Your task to perform on an android device: Go to notification settings Image 0: 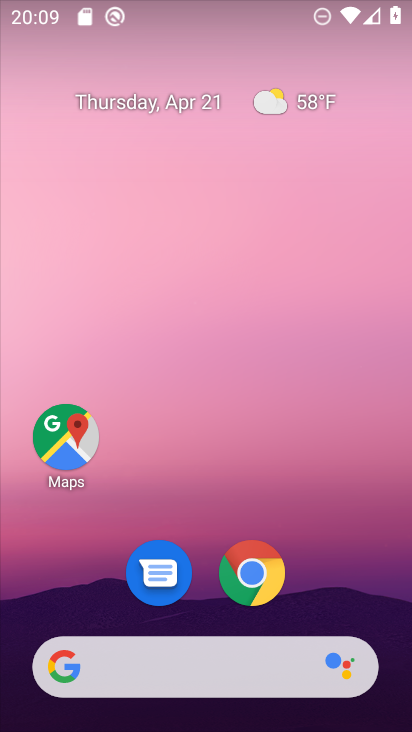
Step 0: drag from (184, 642) to (255, 183)
Your task to perform on an android device: Go to notification settings Image 1: 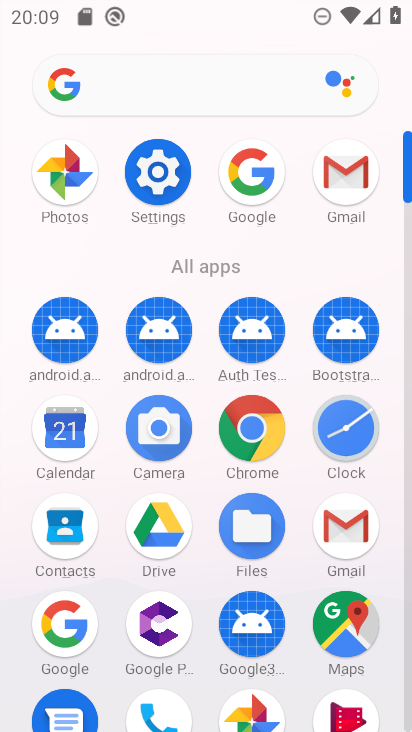
Step 1: click (158, 169)
Your task to perform on an android device: Go to notification settings Image 2: 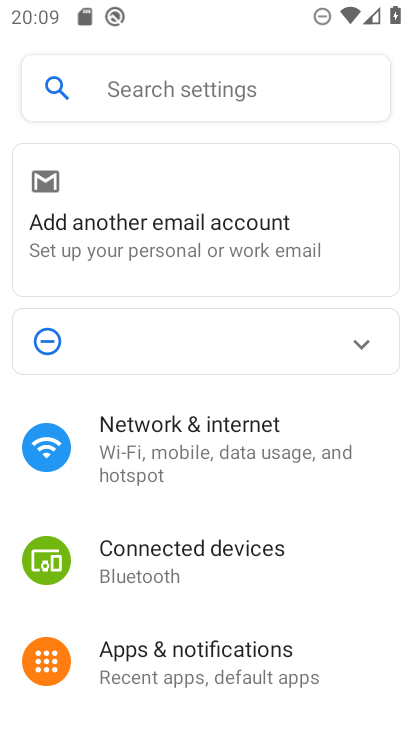
Step 2: click (203, 662)
Your task to perform on an android device: Go to notification settings Image 3: 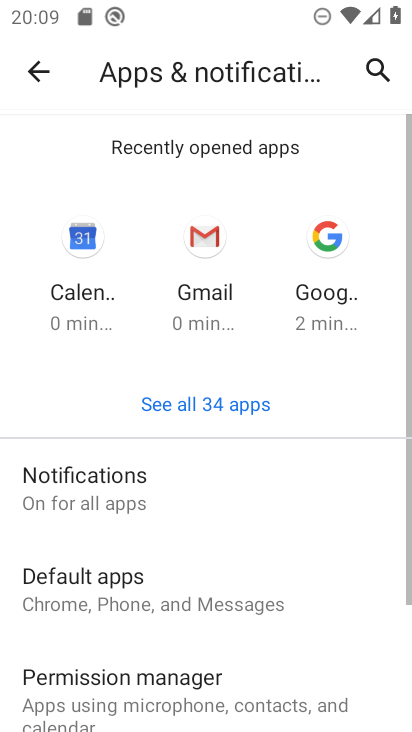
Step 3: drag from (211, 709) to (261, 383)
Your task to perform on an android device: Go to notification settings Image 4: 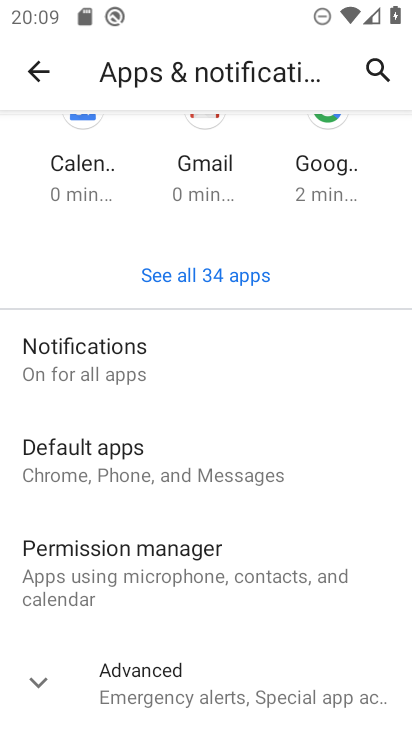
Step 4: click (62, 353)
Your task to perform on an android device: Go to notification settings Image 5: 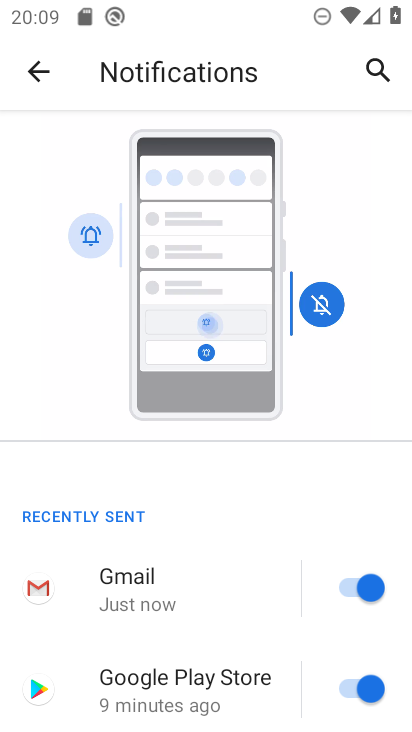
Step 5: task complete